Your task to perform on an android device: turn on the 24-hour format for clock Image 0: 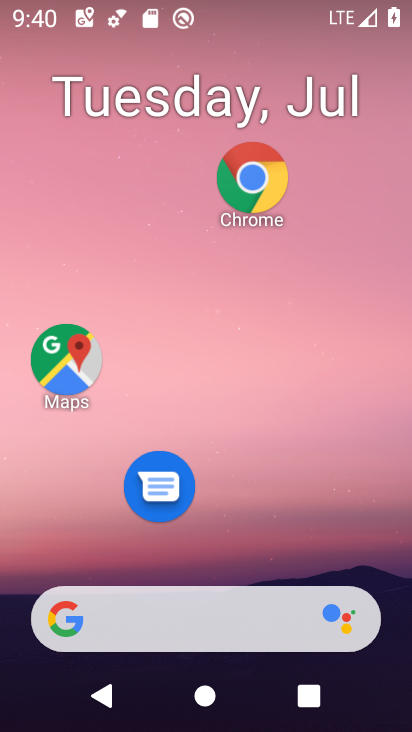
Step 0: drag from (264, 552) to (283, 186)
Your task to perform on an android device: turn on the 24-hour format for clock Image 1: 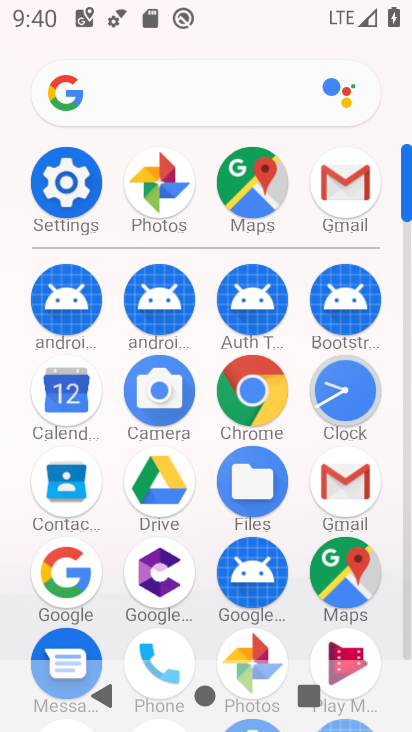
Step 1: click (333, 398)
Your task to perform on an android device: turn on the 24-hour format for clock Image 2: 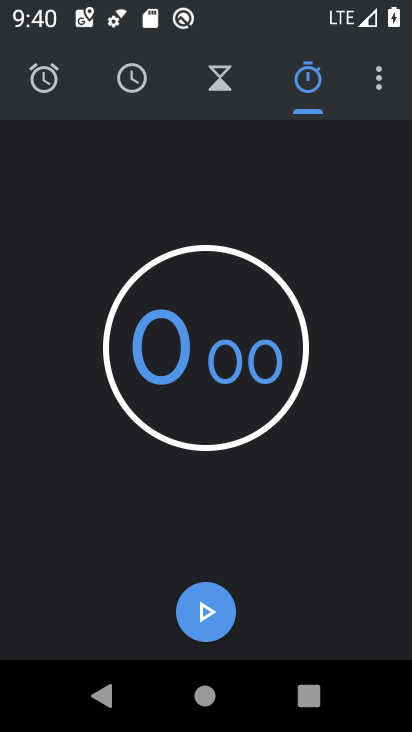
Step 2: click (380, 89)
Your task to perform on an android device: turn on the 24-hour format for clock Image 3: 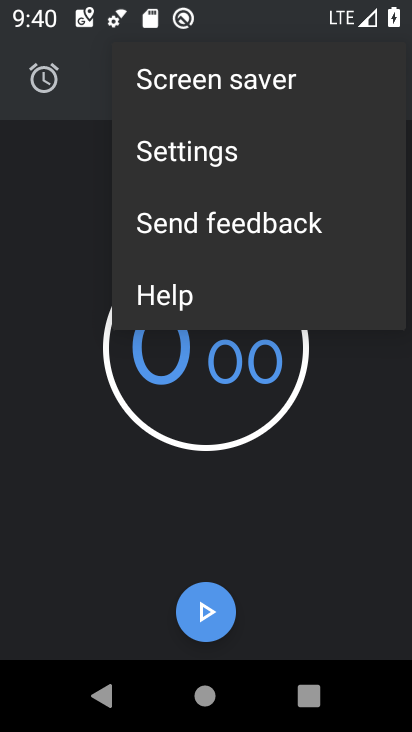
Step 3: click (204, 158)
Your task to perform on an android device: turn on the 24-hour format for clock Image 4: 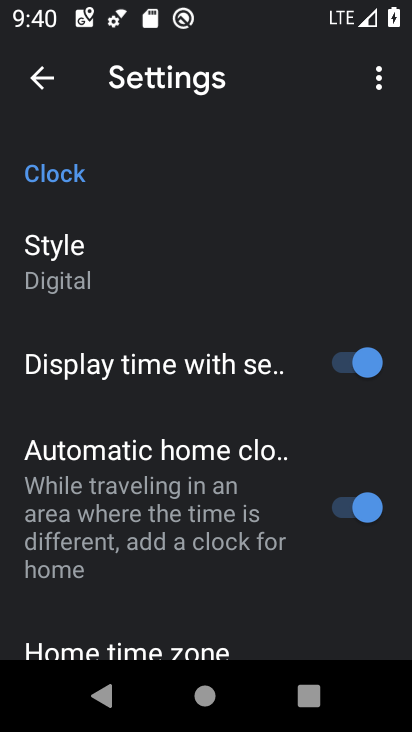
Step 4: drag from (148, 619) to (187, 195)
Your task to perform on an android device: turn on the 24-hour format for clock Image 5: 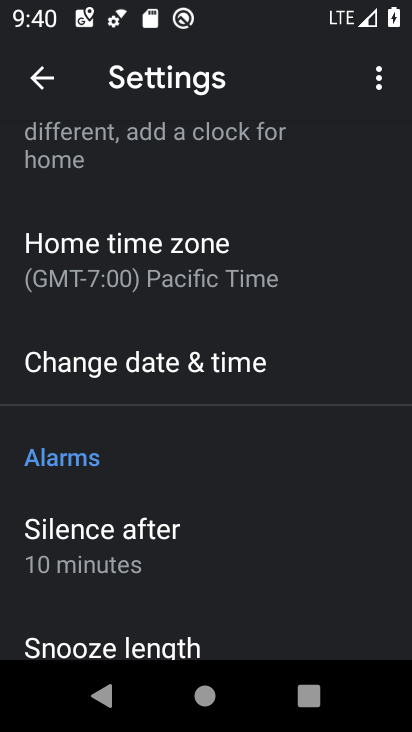
Step 5: click (150, 370)
Your task to perform on an android device: turn on the 24-hour format for clock Image 6: 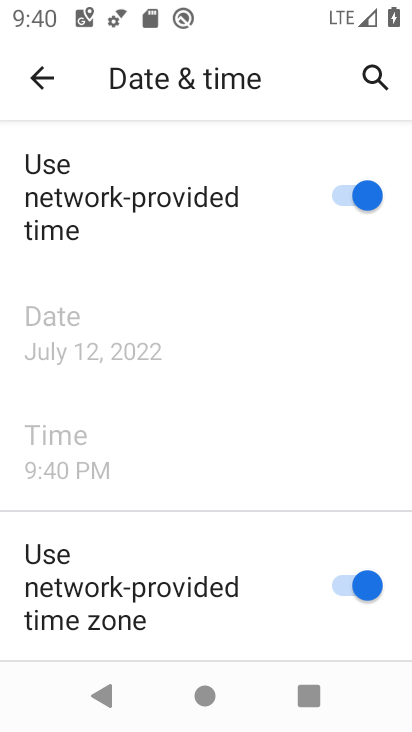
Step 6: drag from (168, 577) to (253, 94)
Your task to perform on an android device: turn on the 24-hour format for clock Image 7: 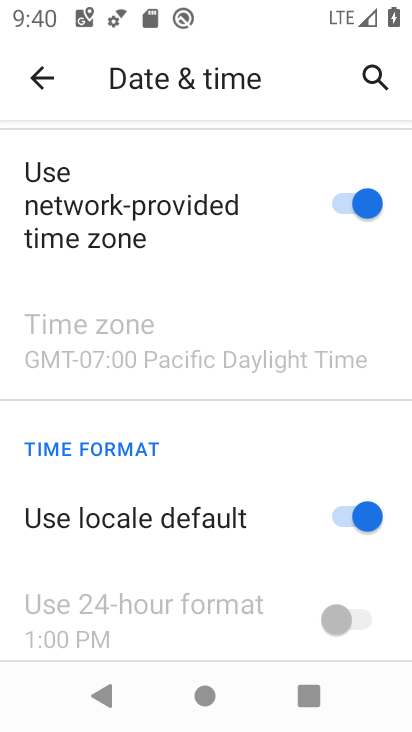
Step 7: click (212, 626)
Your task to perform on an android device: turn on the 24-hour format for clock Image 8: 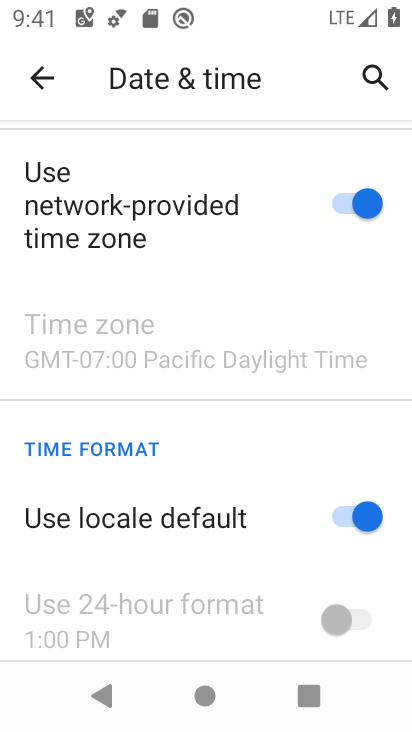
Step 8: task complete